Your task to perform on an android device: check out phone information Image 0: 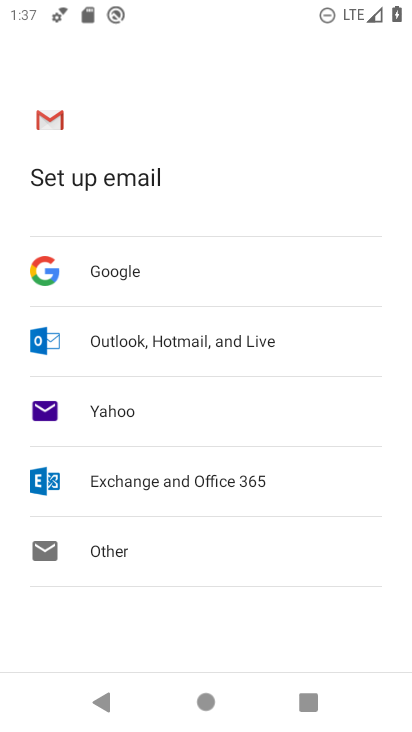
Step 0: press home button
Your task to perform on an android device: check out phone information Image 1: 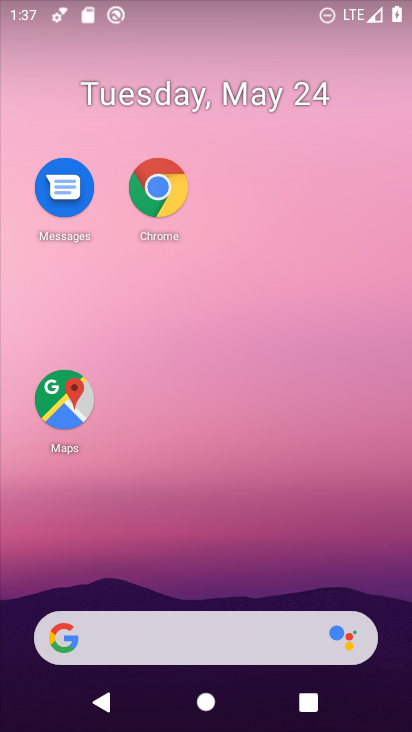
Step 1: drag from (224, 601) to (175, 0)
Your task to perform on an android device: check out phone information Image 2: 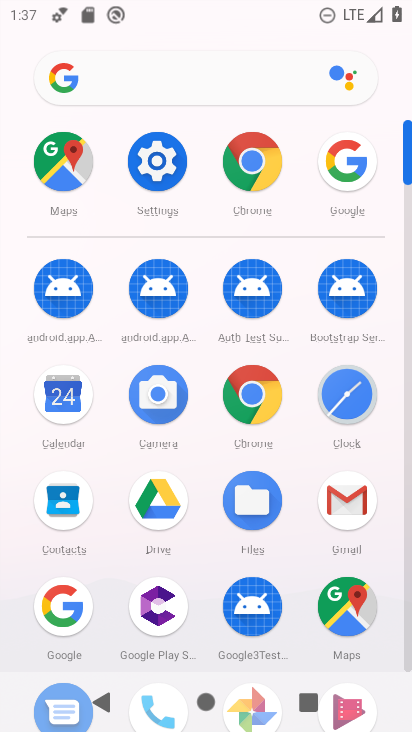
Step 2: drag from (261, 644) to (258, 184)
Your task to perform on an android device: check out phone information Image 3: 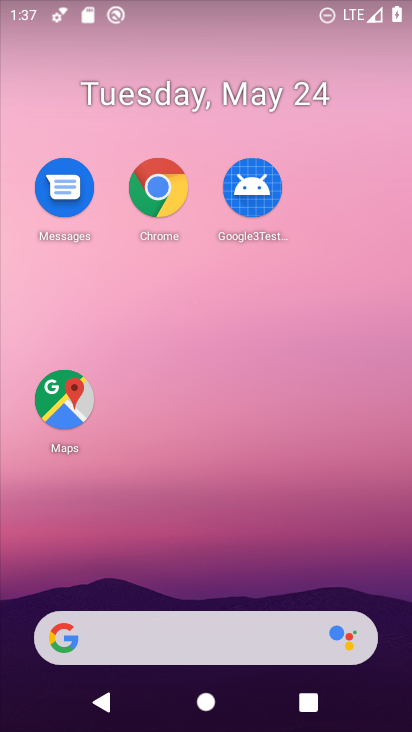
Step 3: press home button
Your task to perform on an android device: check out phone information Image 4: 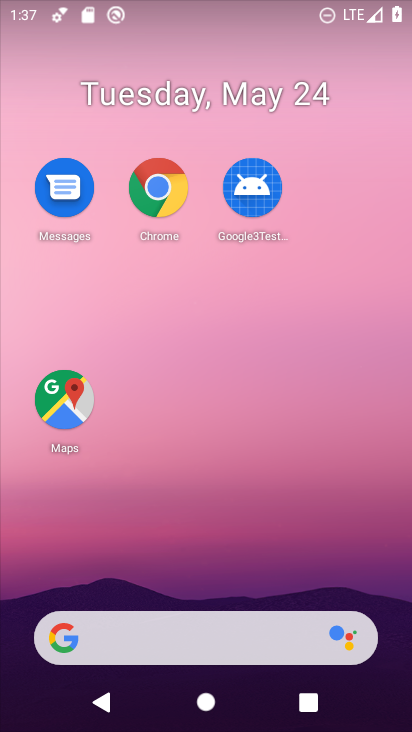
Step 4: drag from (232, 583) to (238, 15)
Your task to perform on an android device: check out phone information Image 5: 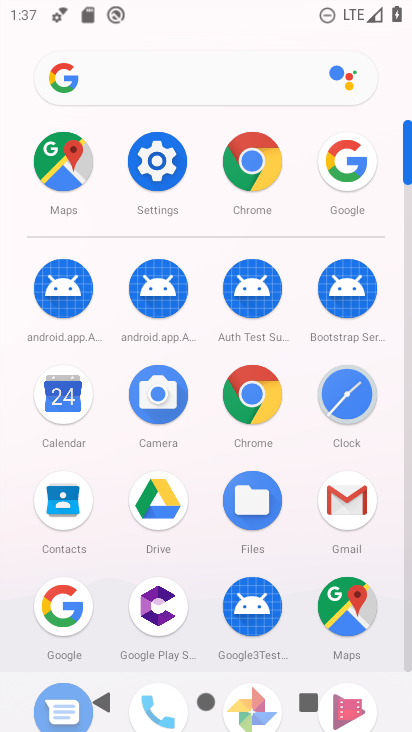
Step 5: click (153, 170)
Your task to perform on an android device: check out phone information Image 6: 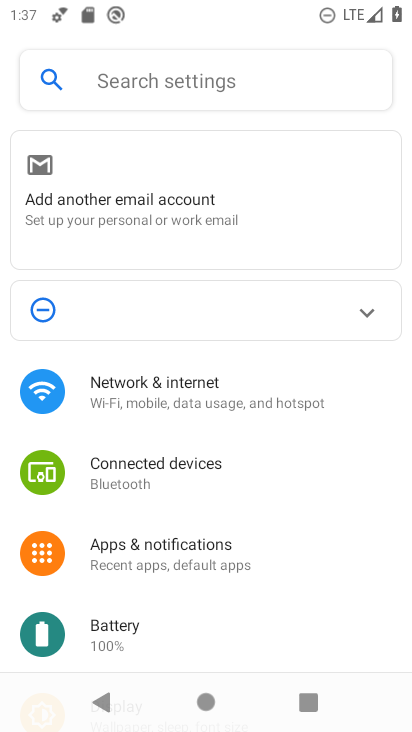
Step 6: drag from (154, 678) to (161, 240)
Your task to perform on an android device: check out phone information Image 7: 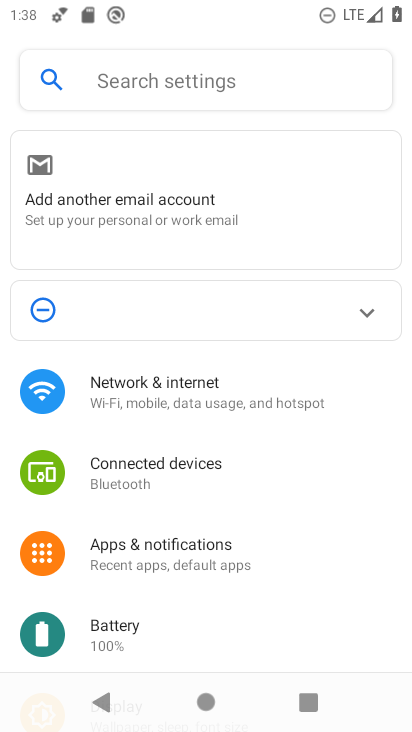
Step 7: click (201, 259)
Your task to perform on an android device: check out phone information Image 8: 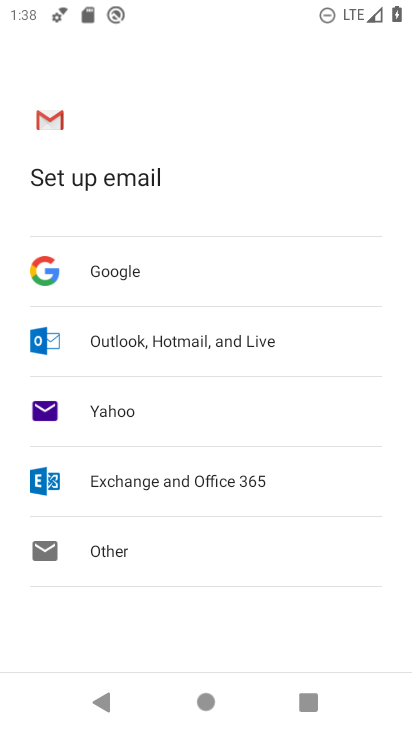
Step 8: press back button
Your task to perform on an android device: check out phone information Image 9: 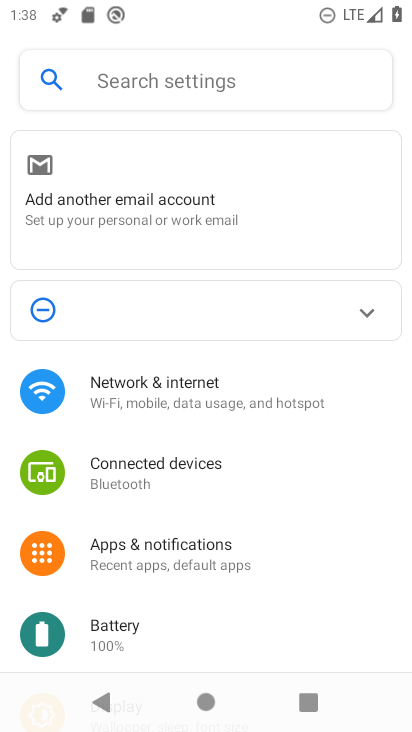
Step 9: drag from (206, 640) to (202, 164)
Your task to perform on an android device: check out phone information Image 10: 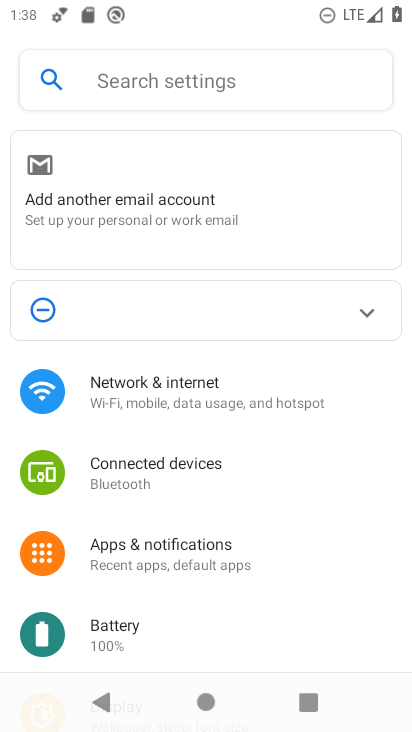
Step 10: drag from (204, 612) to (303, 258)
Your task to perform on an android device: check out phone information Image 11: 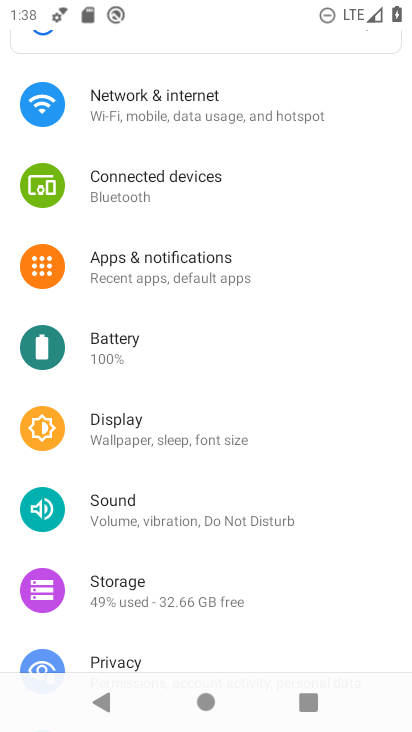
Step 11: click (249, 180)
Your task to perform on an android device: check out phone information Image 12: 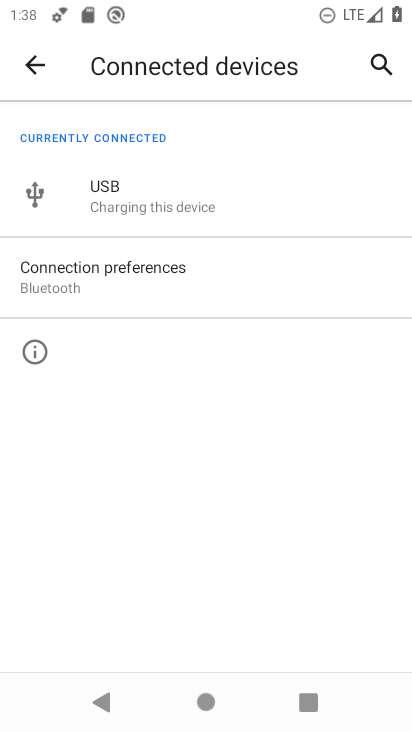
Step 12: press back button
Your task to perform on an android device: check out phone information Image 13: 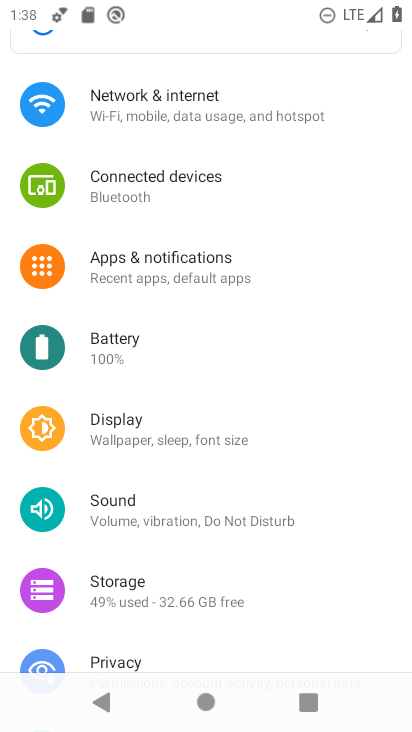
Step 13: drag from (277, 616) to (237, 5)
Your task to perform on an android device: check out phone information Image 14: 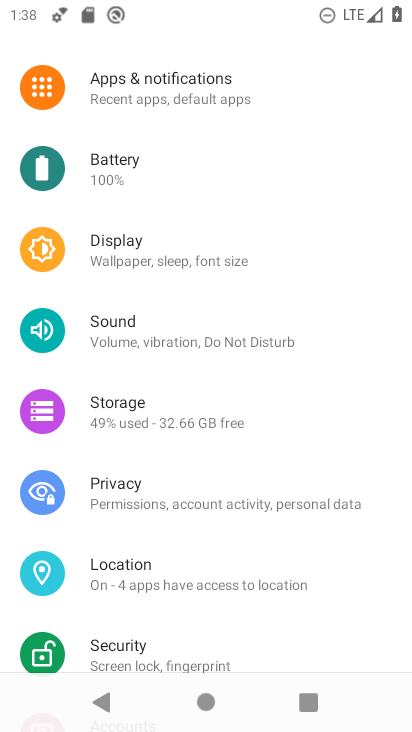
Step 14: drag from (137, 662) to (175, 206)
Your task to perform on an android device: check out phone information Image 15: 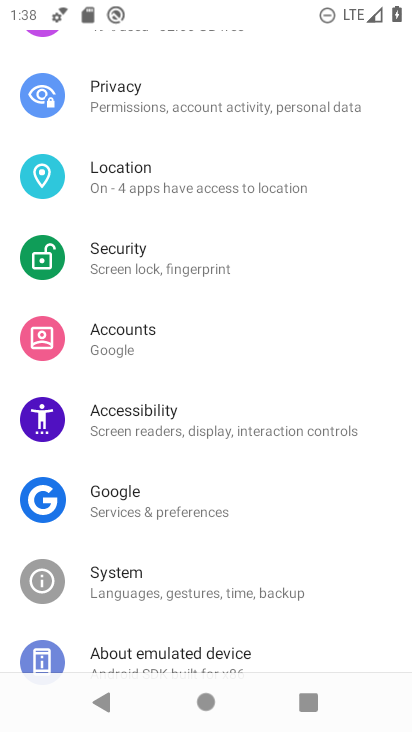
Step 15: click (153, 678)
Your task to perform on an android device: check out phone information Image 16: 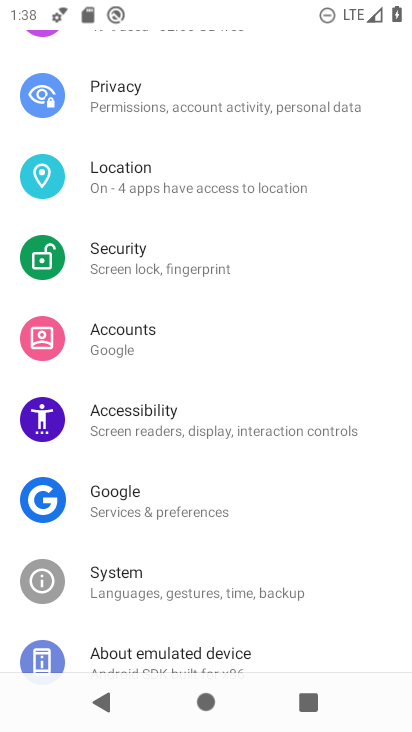
Step 16: click (156, 669)
Your task to perform on an android device: check out phone information Image 17: 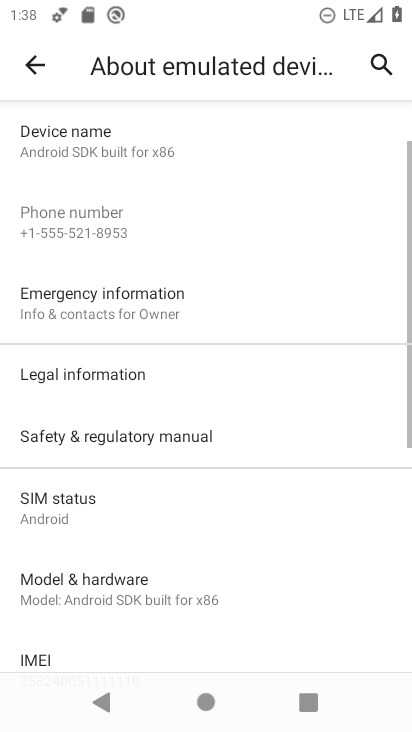
Step 17: task complete